Your task to perform on an android device: turn off sleep mode Image 0: 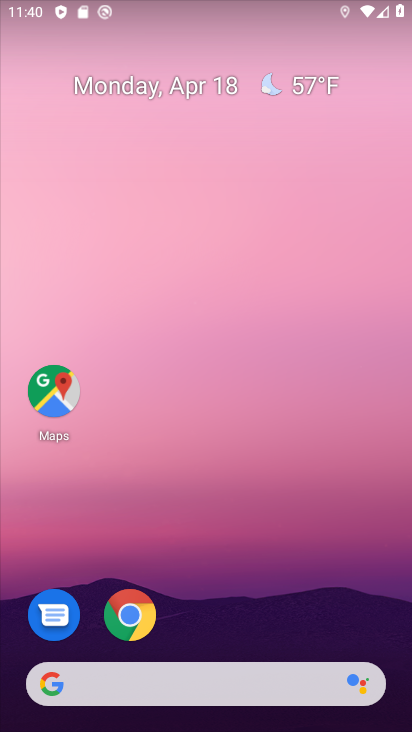
Step 0: drag from (215, 628) to (220, 174)
Your task to perform on an android device: turn off sleep mode Image 1: 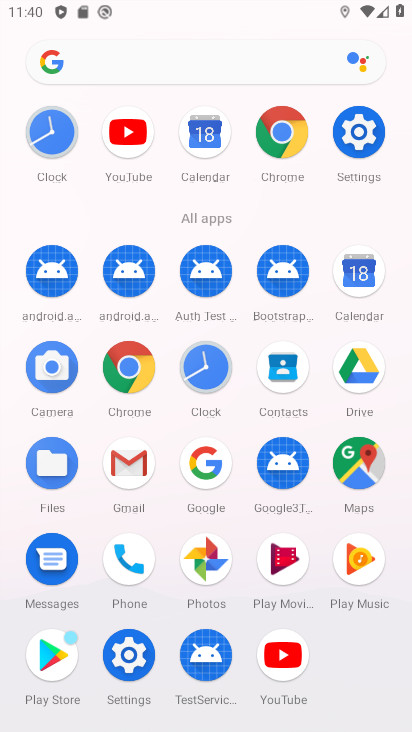
Step 1: click (356, 146)
Your task to perform on an android device: turn off sleep mode Image 2: 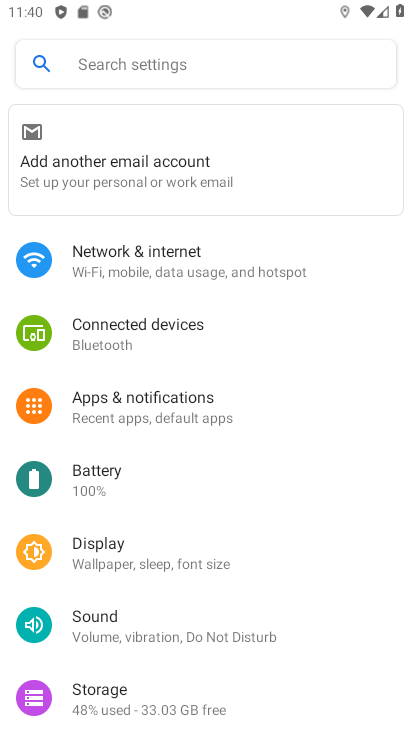
Step 2: click (159, 568)
Your task to perform on an android device: turn off sleep mode Image 3: 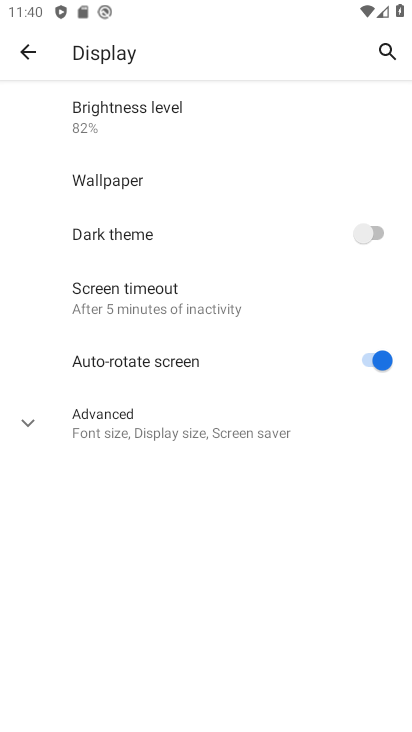
Step 3: click (170, 308)
Your task to perform on an android device: turn off sleep mode Image 4: 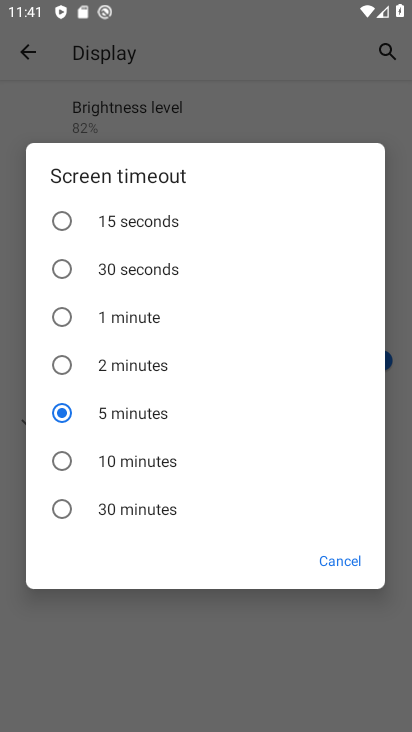
Step 4: click (130, 295)
Your task to perform on an android device: turn off sleep mode Image 5: 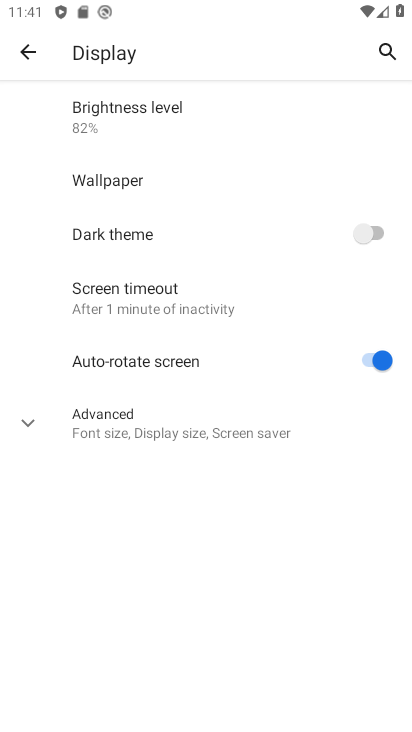
Step 5: task complete